Your task to perform on an android device: set default search engine in the chrome app Image 0: 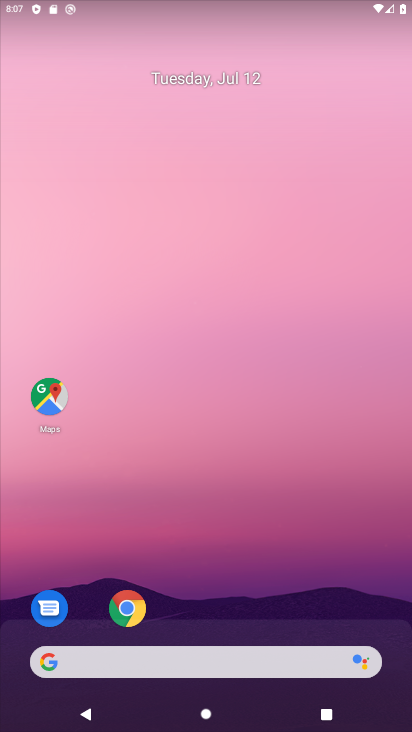
Step 0: click (126, 604)
Your task to perform on an android device: set default search engine in the chrome app Image 1: 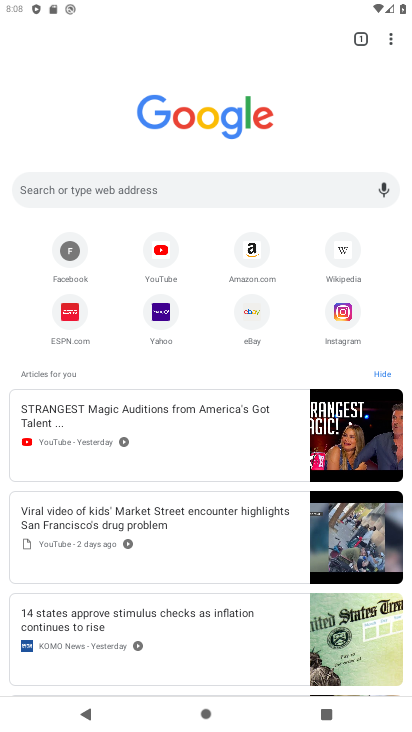
Step 1: click (390, 36)
Your task to perform on an android device: set default search engine in the chrome app Image 2: 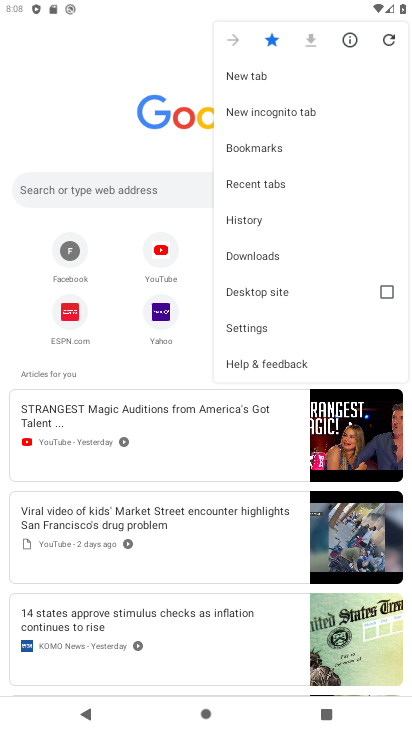
Step 2: click (275, 330)
Your task to perform on an android device: set default search engine in the chrome app Image 3: 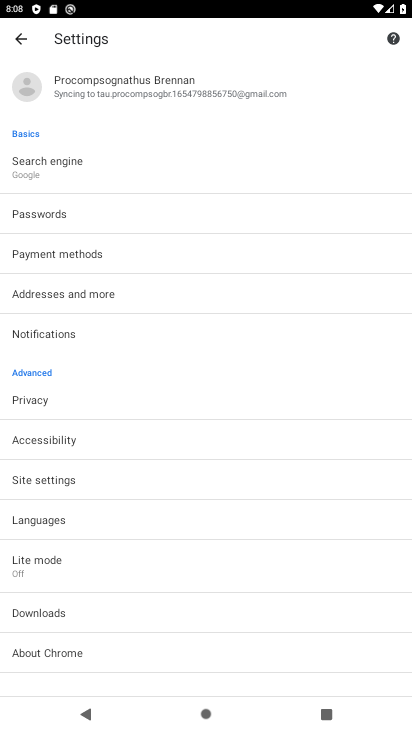
Step 3: click (136, 162)
Your task to perform on an android device: set default search engine in the chrome app Image 4: 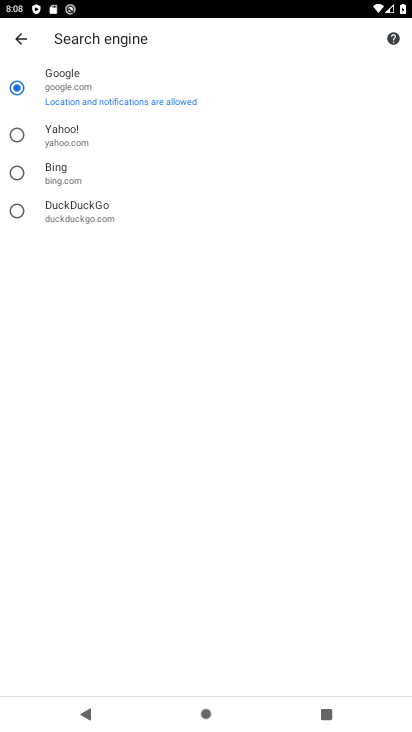
Step 4: click (82, 149)
Your task to perform on an android device: set default search engine in the chrome app Image 5: 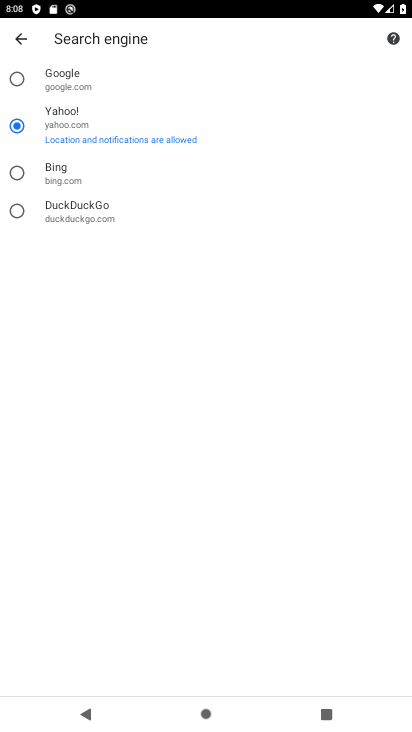
Step 5: task complete